Your task to perform on an android device: Open network settings Image 0: 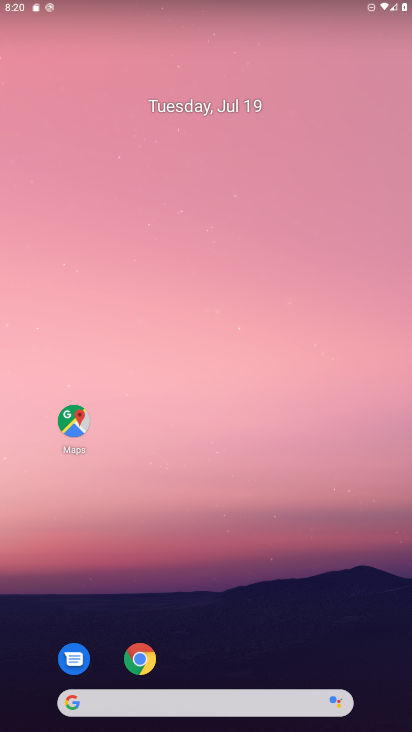
Step 0: drag from (229, 614) to (256, 168)
Your task to perform on an android device: Open network settings Image 1: 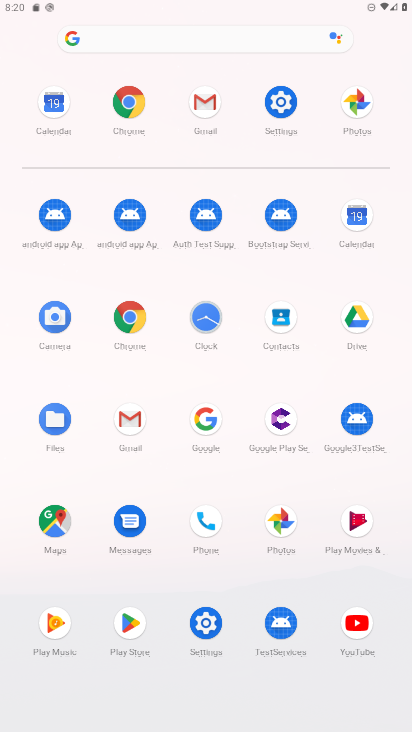
Step 1: click (285, 112)
Your task to perform on an android device: Open network settings Image 2: 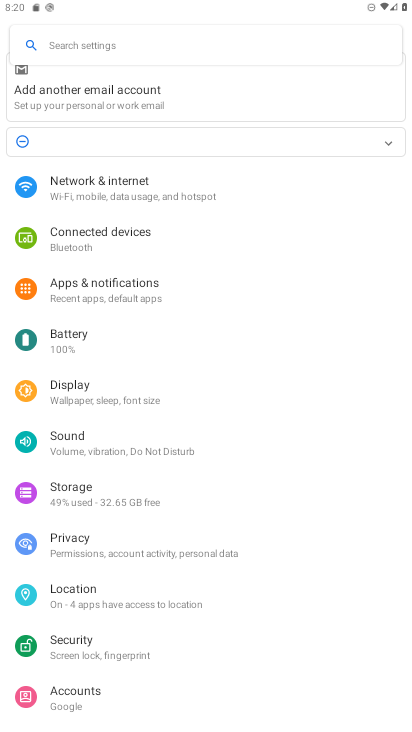
Step 2: click (157, 195)
Your task to perform on an android device: Open network settings Image 3: 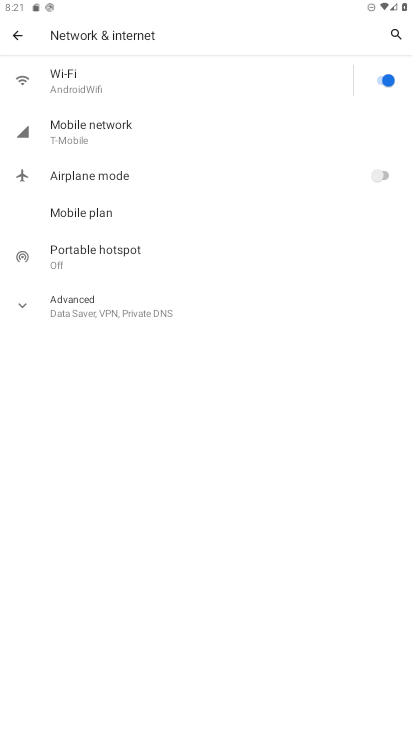
Step 3: task complete